Your task to perform on an android device: Go to ESPN.com Image 0: 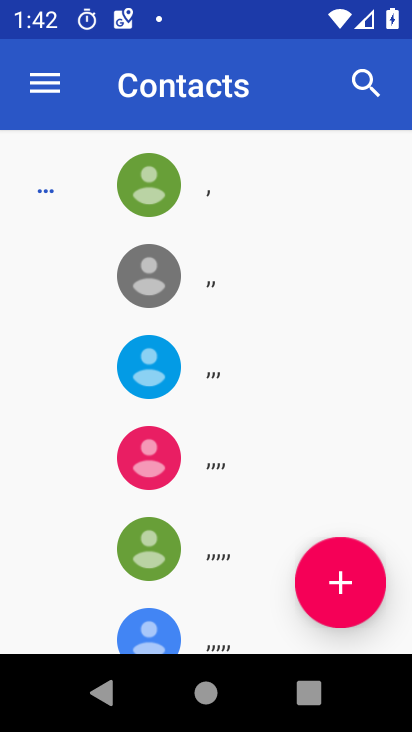
Step 0: press home button
Your task to perform on an android device: Go to ESPN.com Image 1: 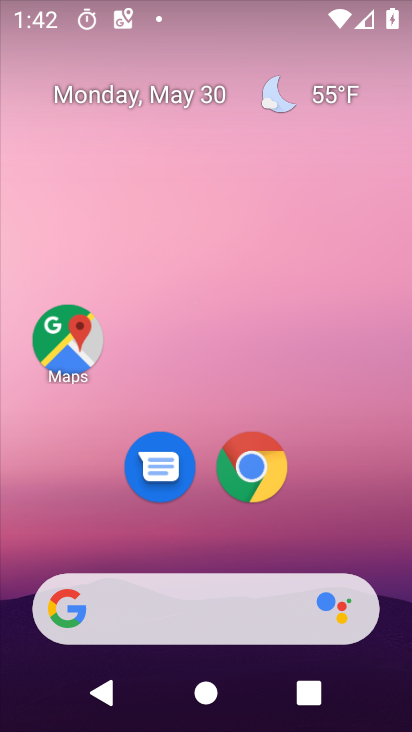
Step 1: click (252, 458)
Your task to perform on an android device: Go to ESPN.com Image 2: 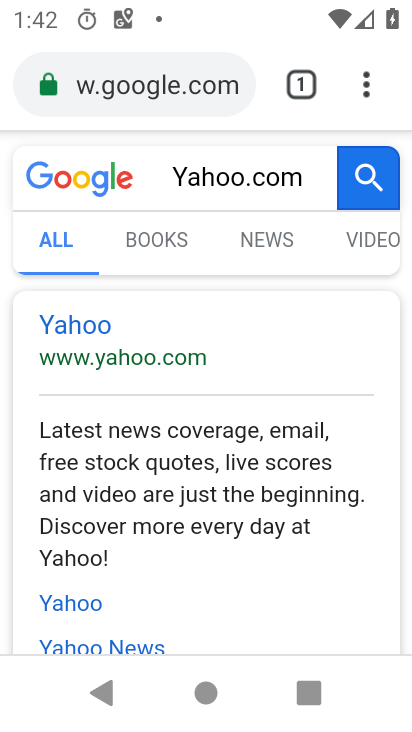
Step 2: click (239, 86)
Your task to perform on an android device: Go to ESPN.com Image 3: 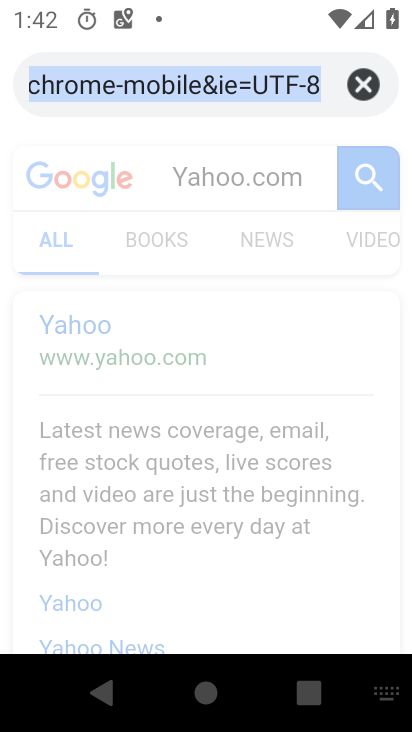
Step 3: click (368, 85)
Your task to perform on an android device: Go to ESPN.com Image 4: 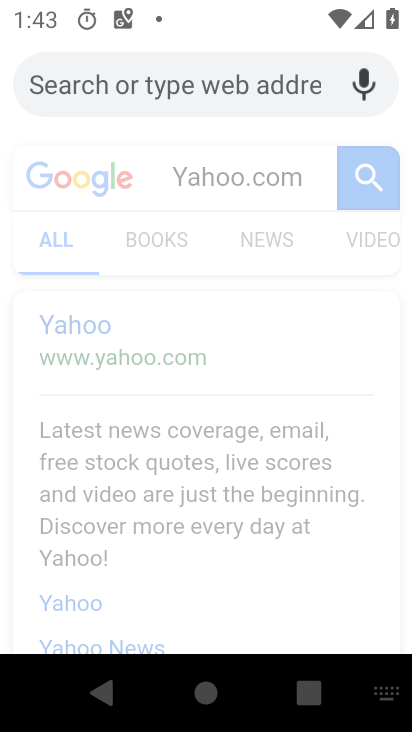
Step 4: type "ESPN.com"
Your task to perform on an android device: Go to ESPN.com Image 5: 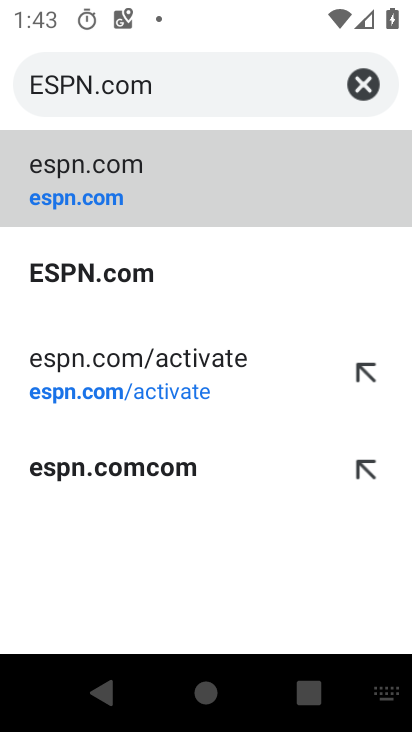
Step 5: click (98, 276)
Your task to perform on an android device: Go to ESPN.com Image 6: 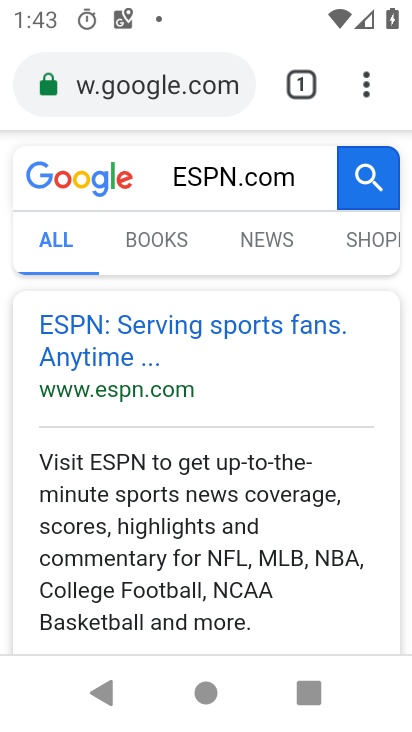
Step 6: task complete